Your task to perform on an android device: What is the recent news? Image 0: 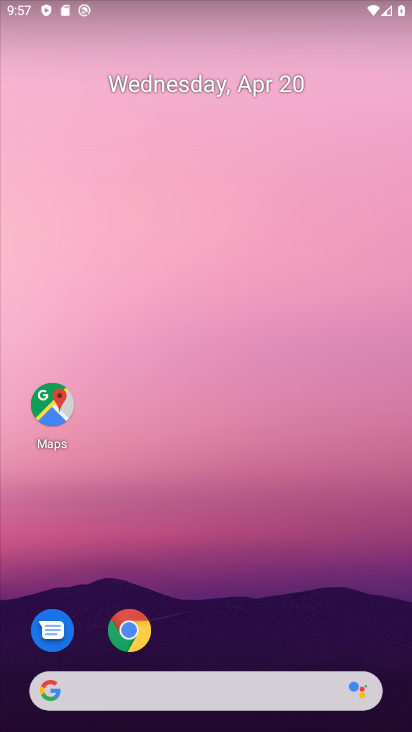
Step 0: drag from (266, 396) to (75, 9)
Your task to perform on an android device: What is the recent news? Image 1: 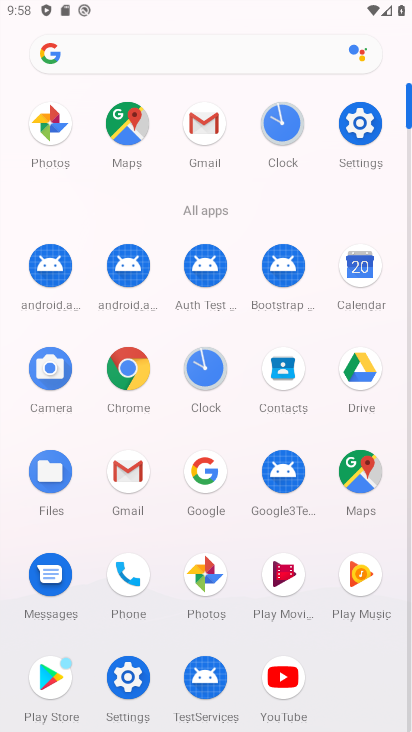
Step 1: click (129, 358)
Your task to perform on an android device: What is the recent news? Image 2: 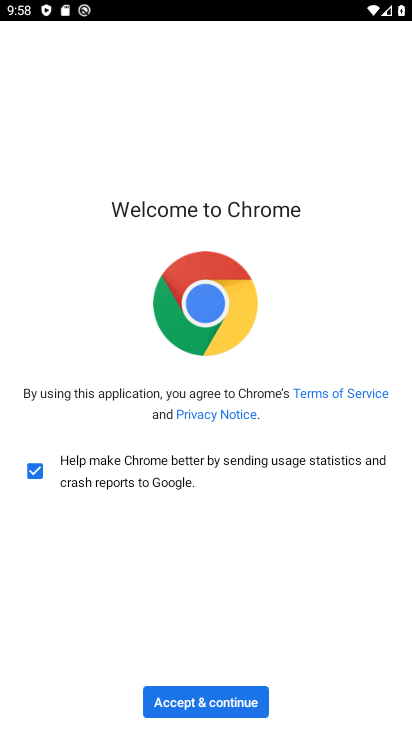
Step 2: click (213, 699)
Your task to perform on an android device: What is the recent news? Image 3: 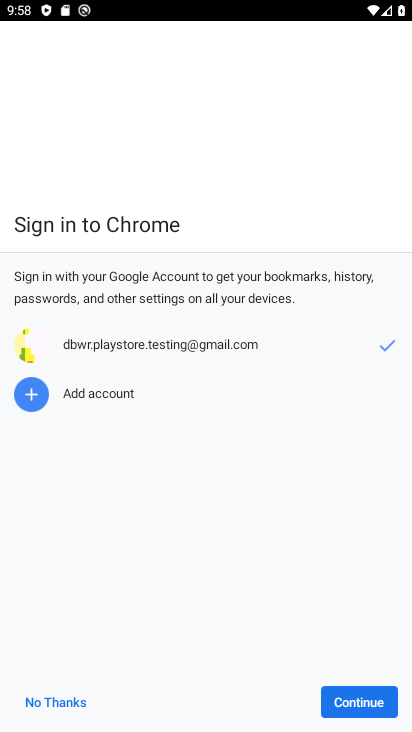
Step 3: click (29, 711)
Your task to perform on an android device: What is the recent news? Image 4: 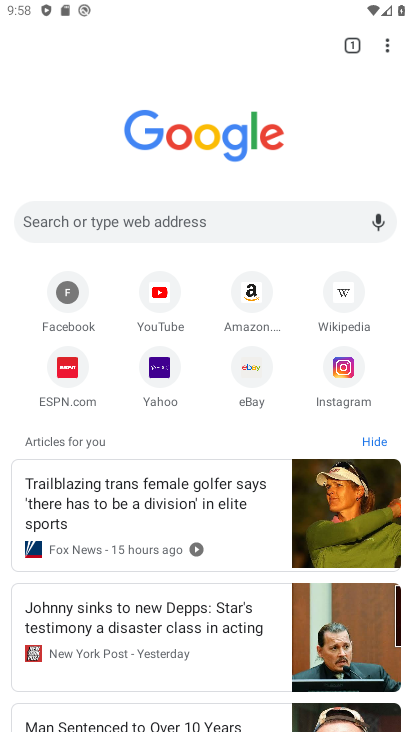
Step 4: task complete